Your task to perform on an android device: turn on translation in the chrome app Image 0: 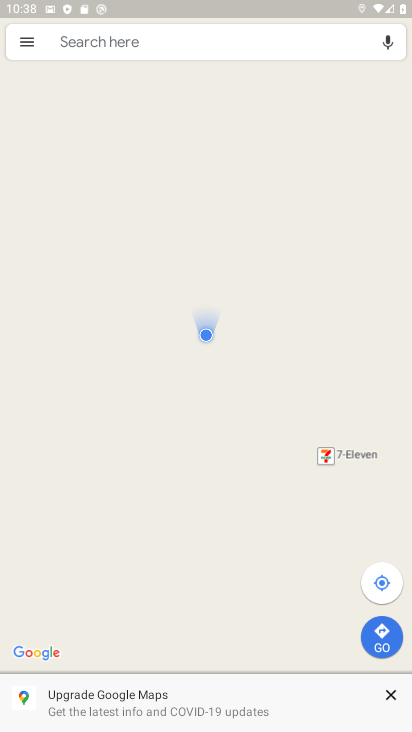
Step 0: press home button
Your task to perform on an android device: turn on translation in the chrome app Image 1: 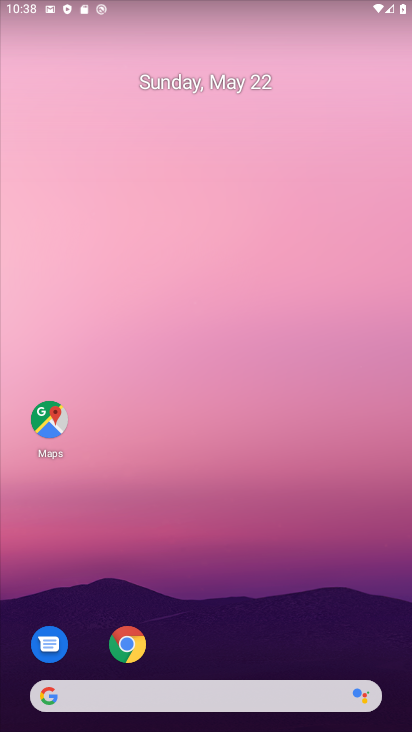
Step 1: click (125, 640)
Your task to perform on an android device: turn on translation in the chrome app Image 2: 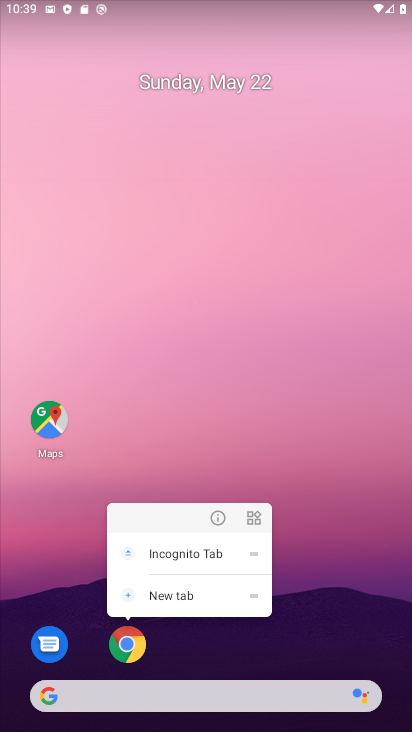
Step 2: click (125, 641)
Your task to perform on an android device: turn on translation in the chrome app Image 3: 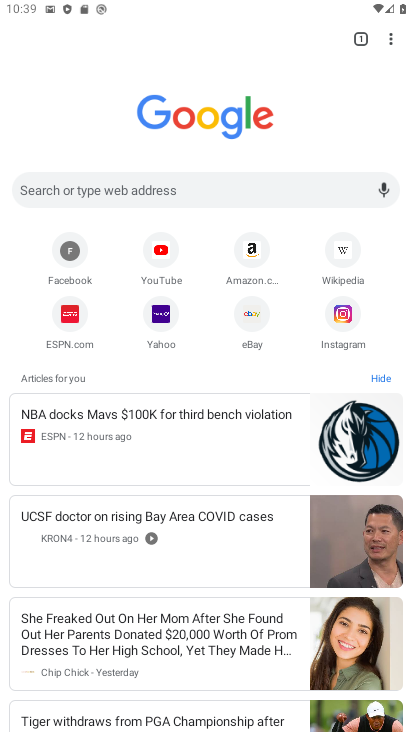
Step 3: click (388, 35)
Your task to perform on an android device: turn on translation in the chrome app Image 4: 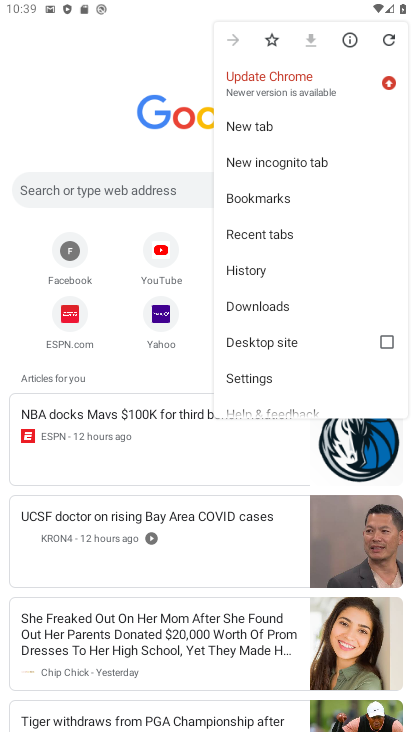
Step 4: click (278, 375)
Your task to perform on an android device: turn on translation in the chrome app Image 5: 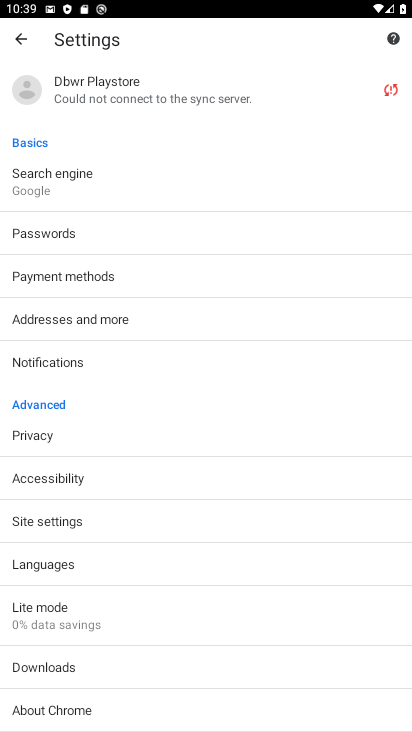
Step 5: click (89, 562)
Your task to perform on an android device: turn on translation in the chrome app Image 6: 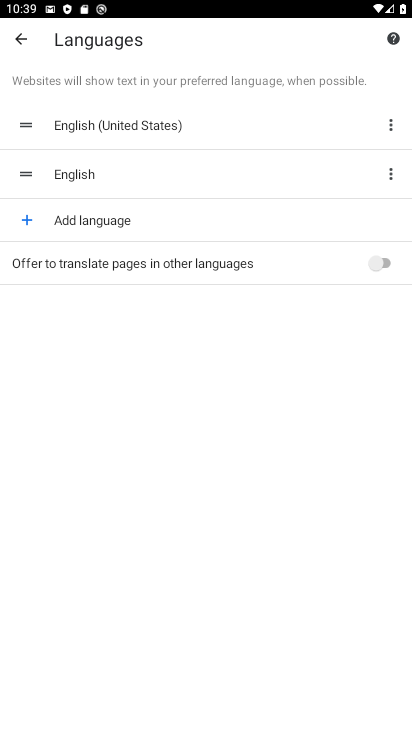
Step 6: click (388, 260)
Your task to perform on an android device: turn on translation in the chrome app Image 7: 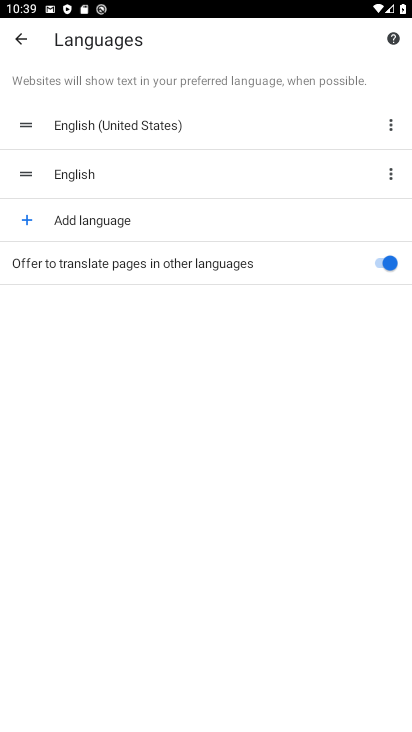
Step 7: task complete